Your task to perform on an android device: turn on translation in the chrome app Image 0: 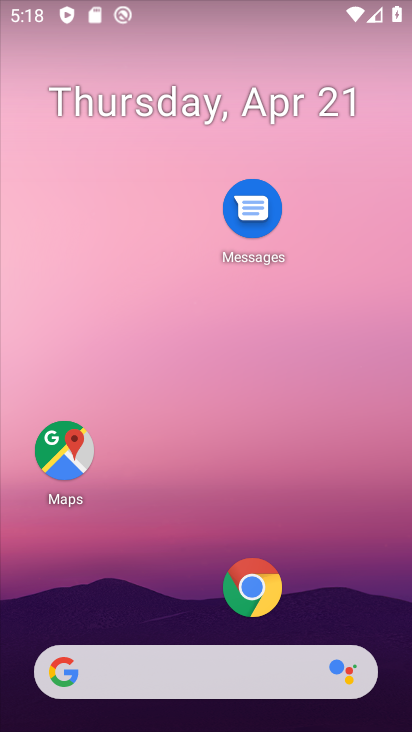
Step 0: click (253, 583)
Your task to perform on an android device: turn on translation in the chrome app Image 1: 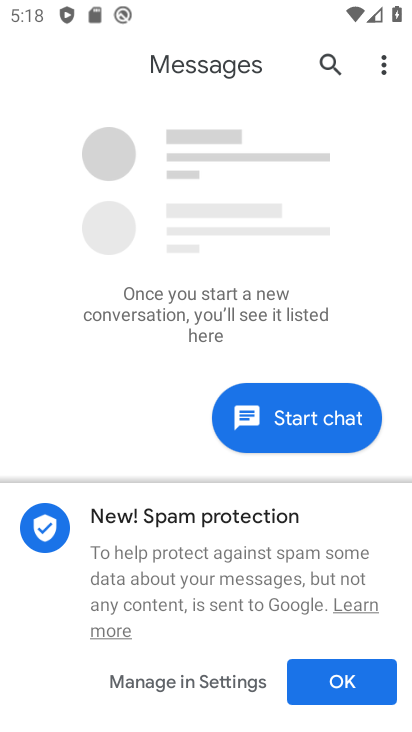
Step 1: press home button
Your task to perform on an android device: turn on translation in the chrome app Image 2: 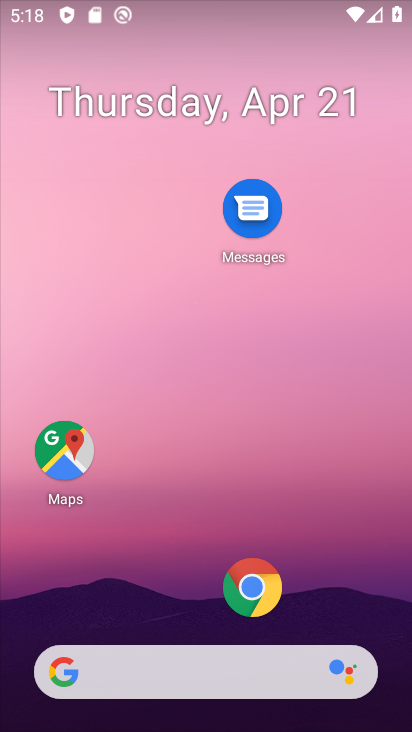
Step 2: click (253, 576)
Your task to perform on an android device: turn on translation in the chrome app Image 3: 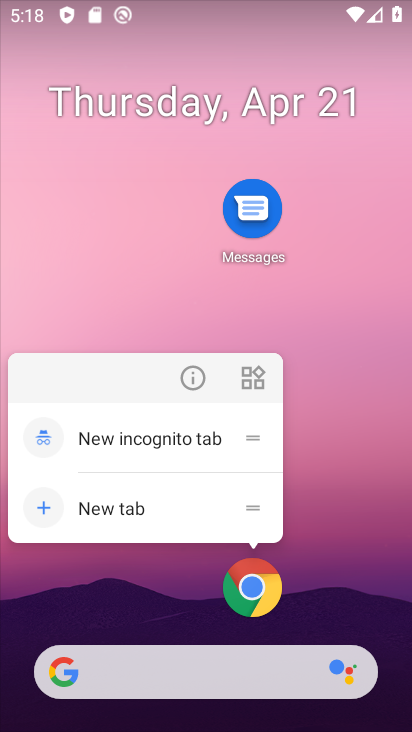
Step 3: click (297, 572)
Your task to perform on an android device: turn on translation in the chrome app Image 4: 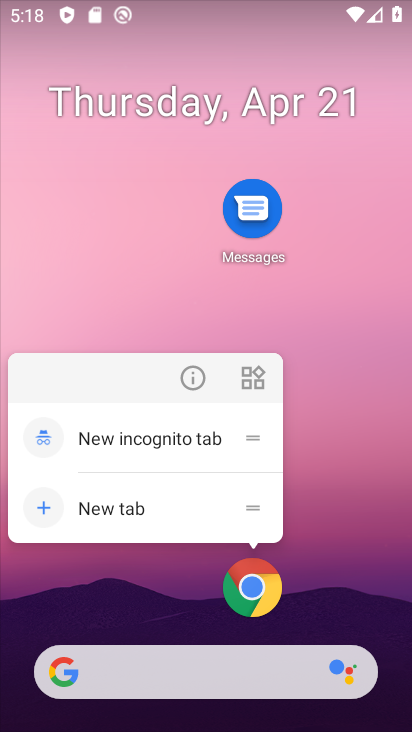
Step 4: drag from (333, 615) to (408, 123)
Your task to perform on an android device: turn on translation in the chrome app Image 5: 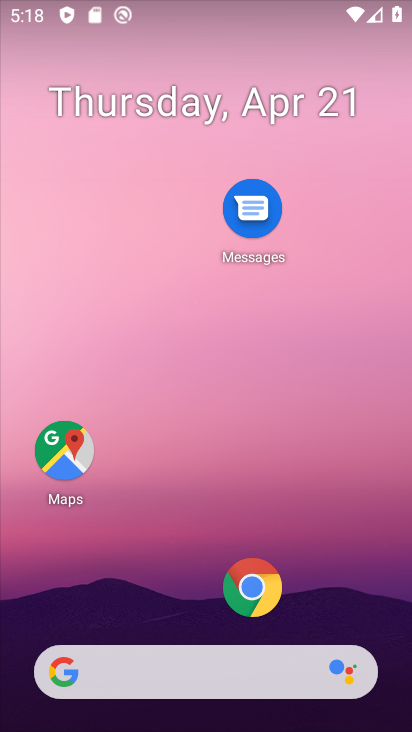
Step 5: drag from (310, 590) to (328, 48)
Your task to perform on an android device: turn on translation in the chrome app Image 6: 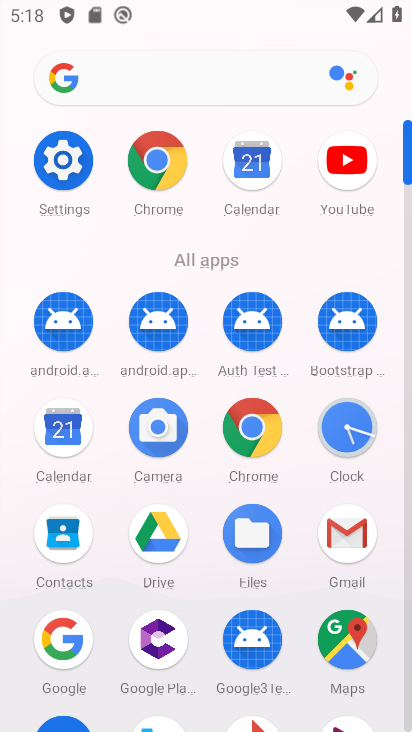
Step 6: click (243, 422)
Your task to perform on an android device: turn on translation in the chrome app Image 7: 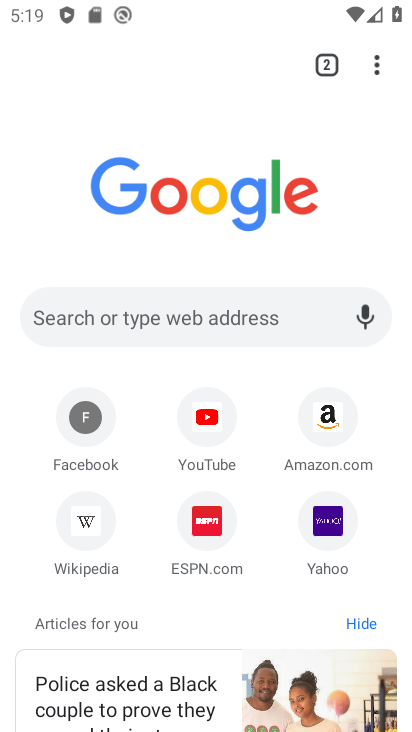
Step 7: click (373, 70)
Your task to perform on an android device: turn on translation in the chrome app Image 8: 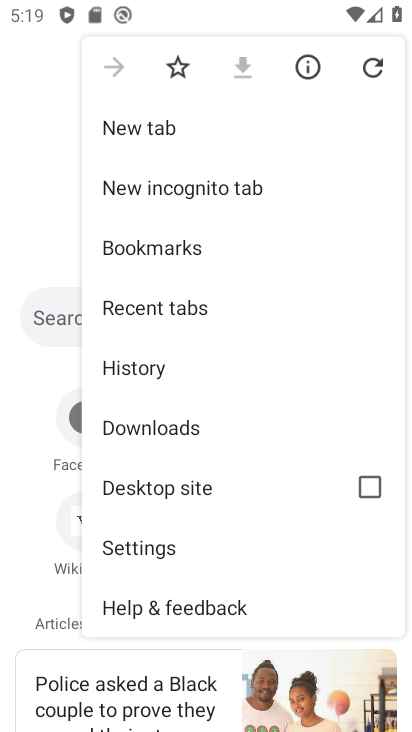
Step 8: click (190, 536)
Your task to perform on an android device: turn on translation in the chrome app Image 9: 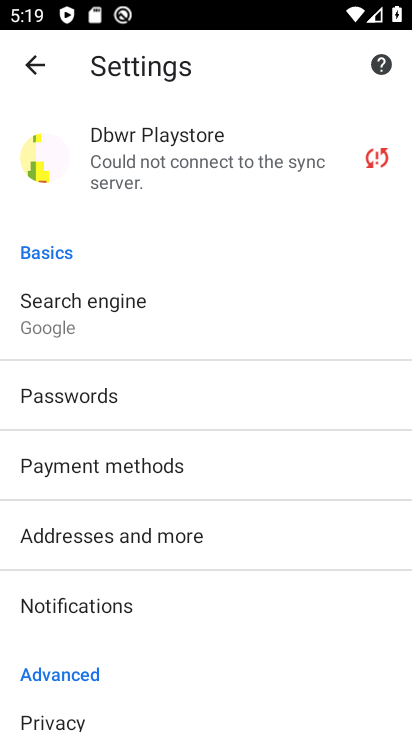
Step 9: drag from (189, 598) to (220, 120)
Your task to perform on an android device: turn on translation in the chrome app Image 10: 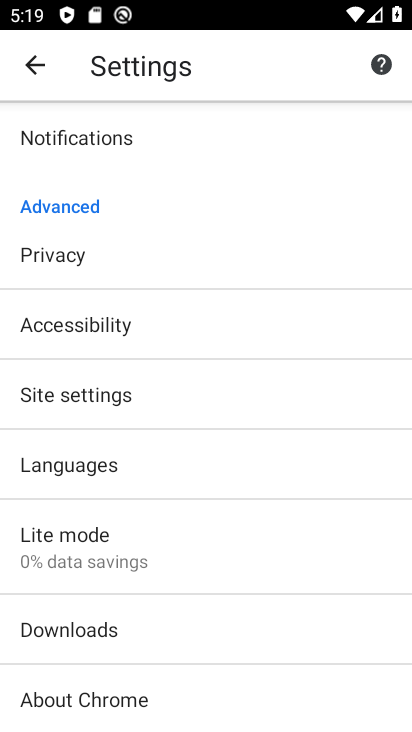
Step 10: click (140, 471)
Your task to perform on an android device: turn on translation in the chrome app Image 11: 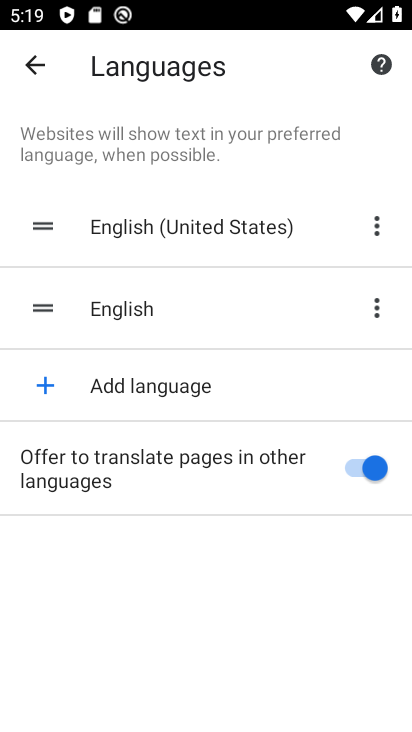
Step 11: task complete